Your task to perform on an android device: Open ESPN.com Image 0: 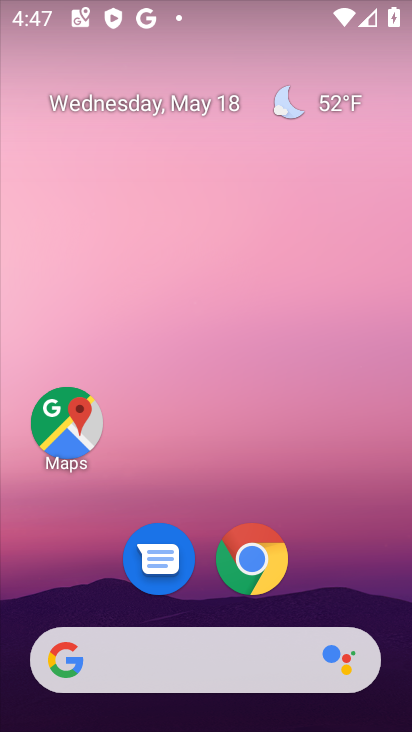
Step 0: click (255, 548)
Your task to perform on an android device: Open ESPN.com Image 1: 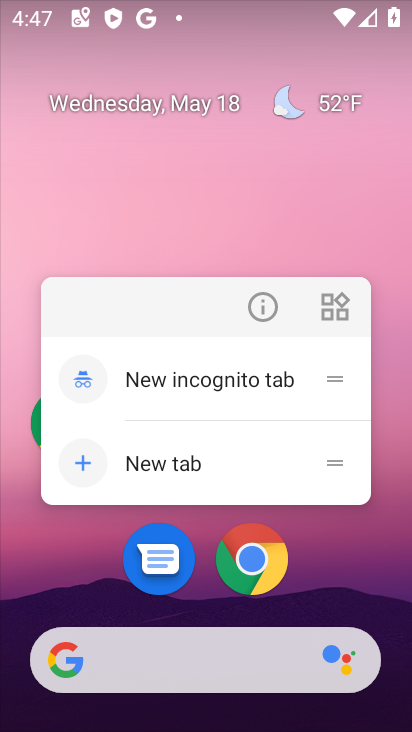
Step 1: click (259, 548)
Your task to perform on an android device: Open ESPN.com Image 2: 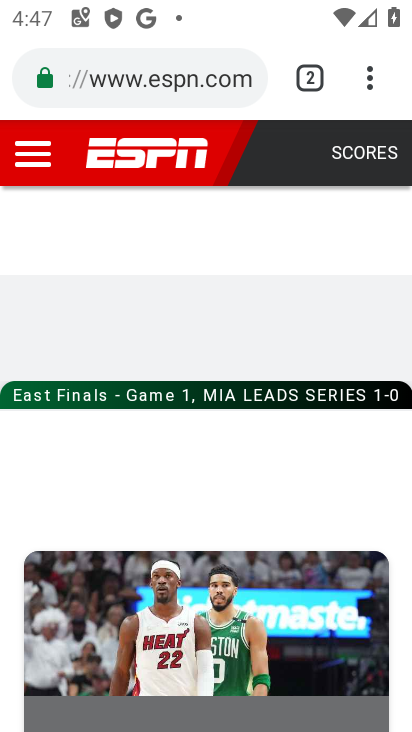
Step 2: task complete